Your task to perform on an android device: Open location settings Image 0: 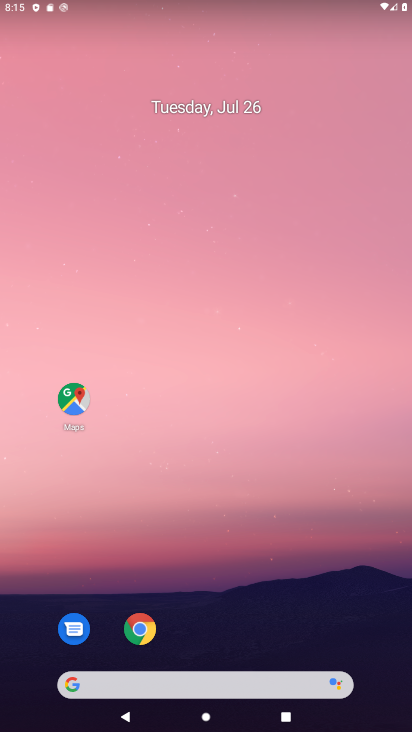
Step 0: drag from (209, 668) to (147, 217)
Your task to perform on an android device: Open location settings Image 1: 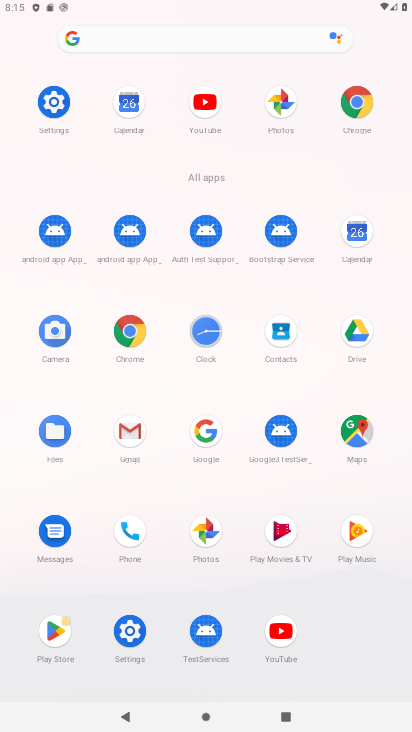
Step 1: click (122, 623)
Your task to perform on an android device: Open location settings Image 2: 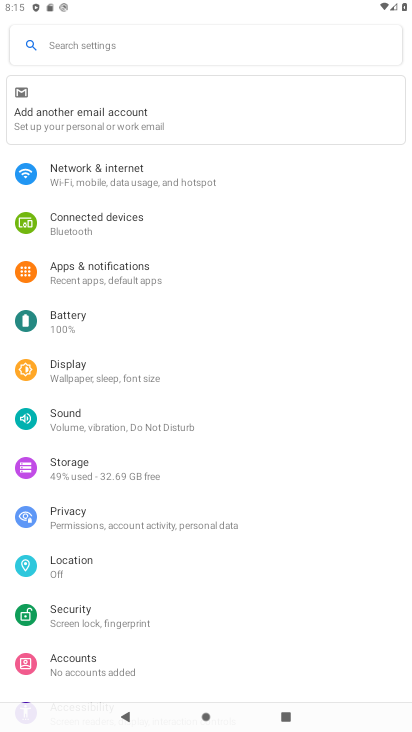
Step 2: click (77, 564)
Your task to perform on an android device: Open location settings Image 3: 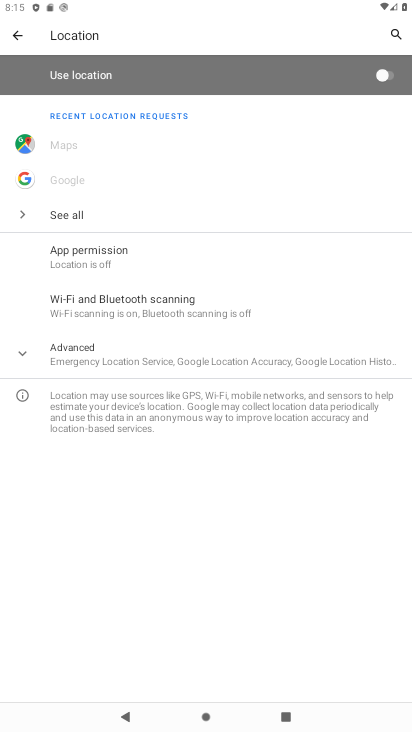
Step 3: click (126, 349)
Your task to perform on an android device: Open location settings Image 4: 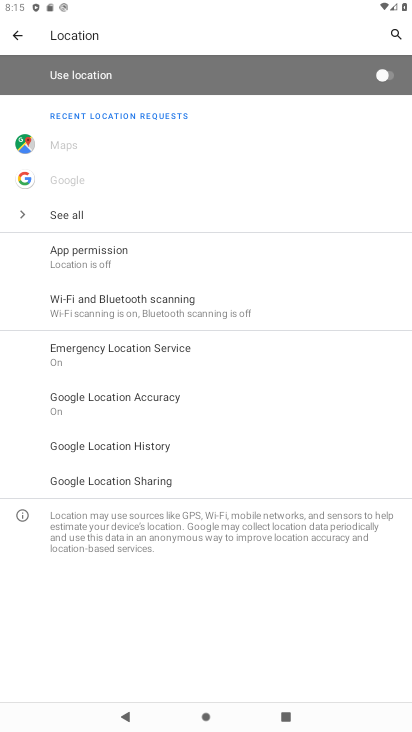
Step 4: task complete